Your task to perform on an android device: Open Google Maps and go to "Timeline" Image 0: 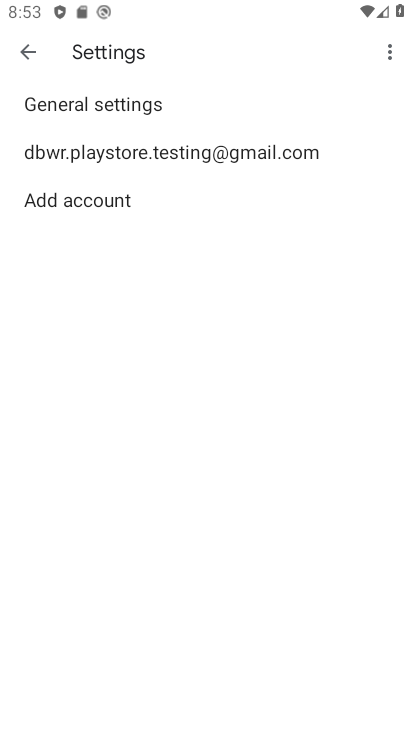
Step 0: press home button
Your task to perform on an android device: Open Google Maps and go to "Timeline" Image 1: 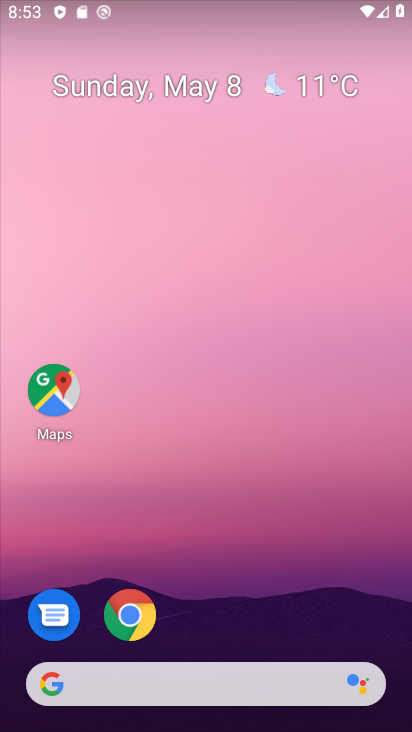
Step 1: drag from (246, 638) to (298, 168)
Your task to perform on an android device: Open Google Maps and go to "Timeline" Image 2: 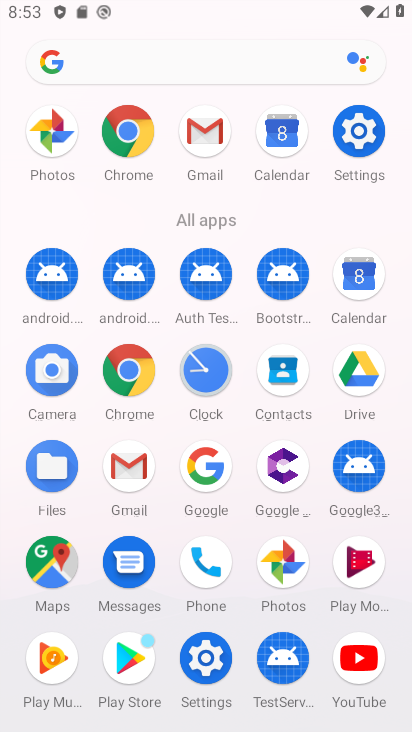
Step 2: click (58, 557)
Your task to perform on an android device: Open Google Maps and go to "Timeline" Image 3: 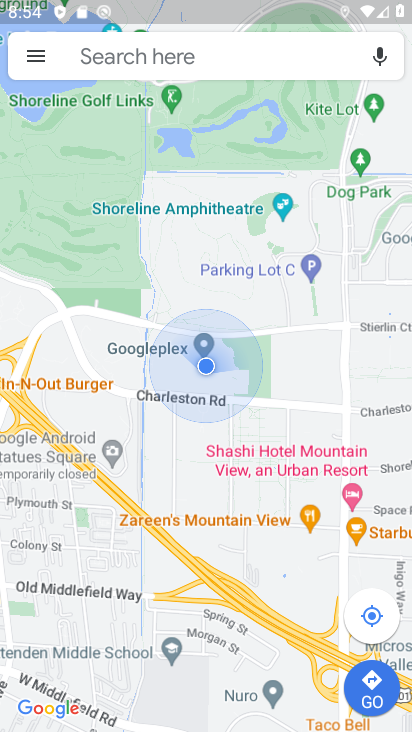
Step 3: click (32, 66)
Your task to perform on an android device: Open Google Maps and go to "Timeline" Image 4: 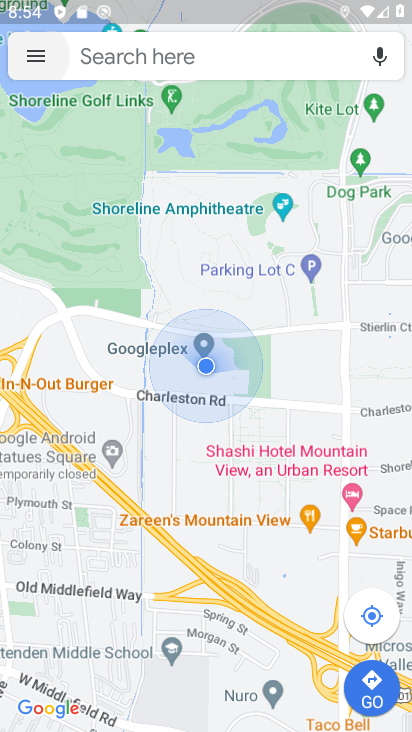
Step 4: click (46, 48)
Your task to perform on an android device: Open Google Maps and go to "Timeline" Image 5: 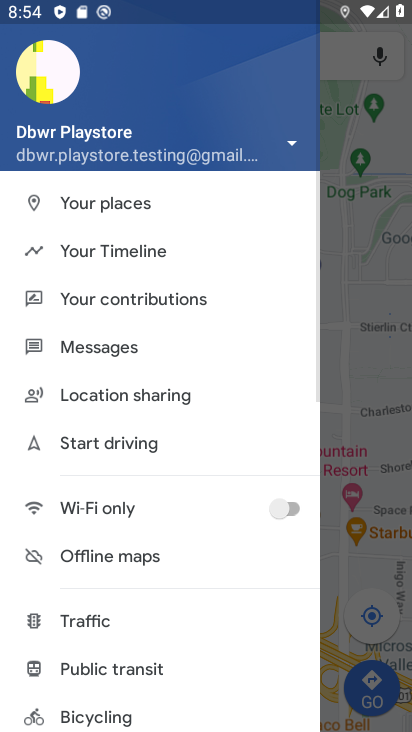
Step 5: click (167, 249)
Your task to perform on an android device: Open Google Maps and go to "Timeline" Image 6: 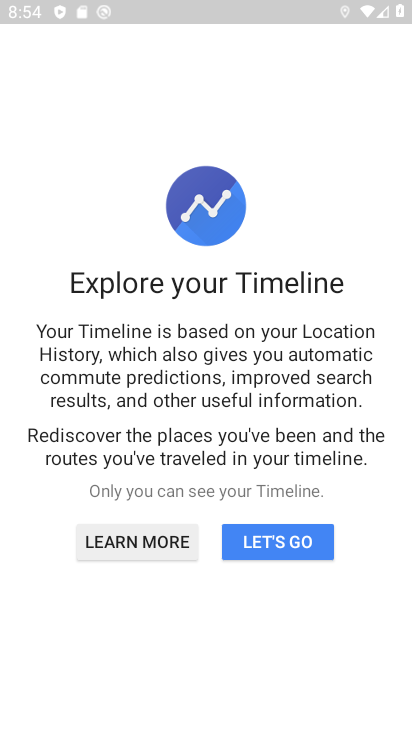
Step 6: click (275, 545)
Your task to perform on an android device: Open Google Maps and go to "Timeline" Image 7: 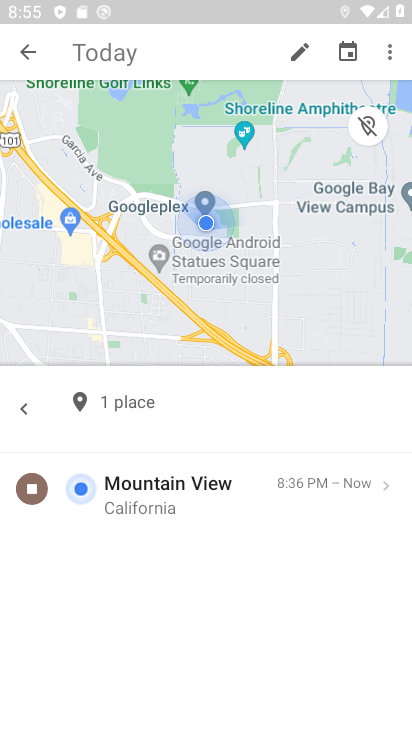
Step 7: task complete